Your task to perform on an android device: Search for Mexican restaurants on Maps Image 0: 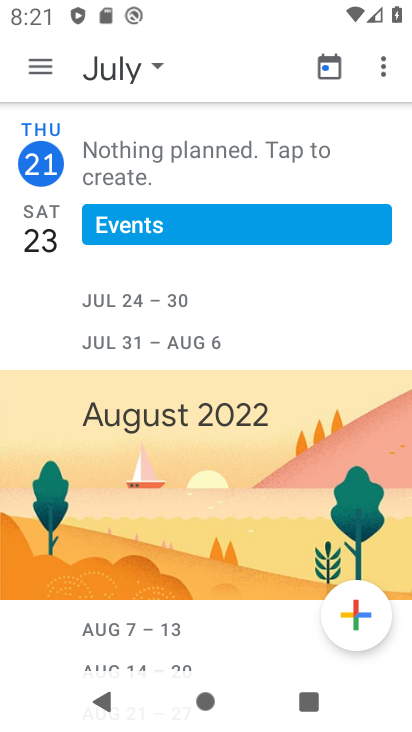
Step 0: press home button
Your task to perform on an android device: Search for Mexican restaurants on Maps Image 1: 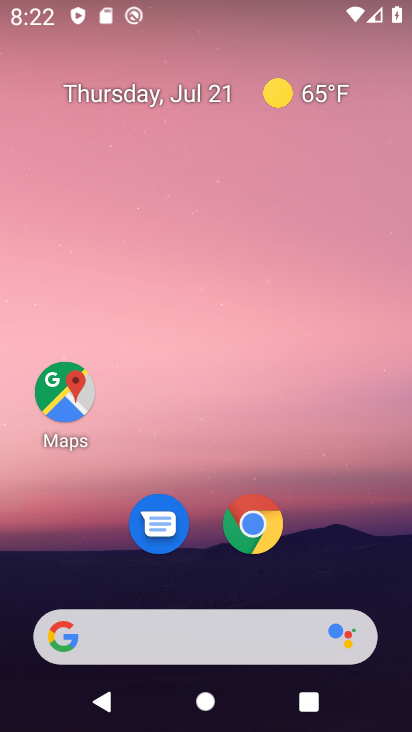
Step 1: click (61, 420)
Your task to perform on an android device: Search for Mexican restaurants on Maps Image 2: 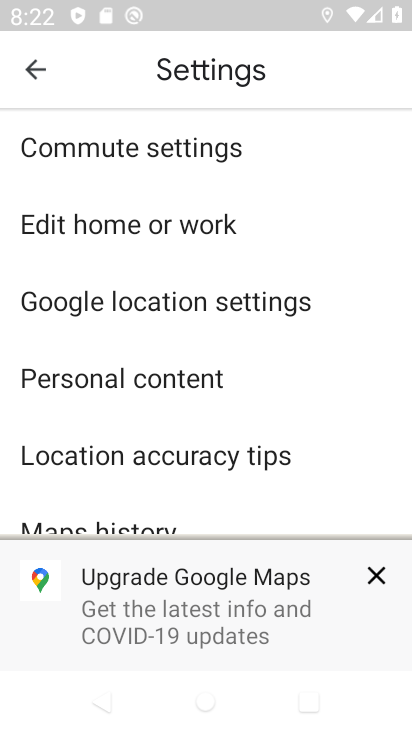
Step 2: click (34, 77)
Your task to perform on an android device: Search for Mexican restaurants on Maps Image 3: 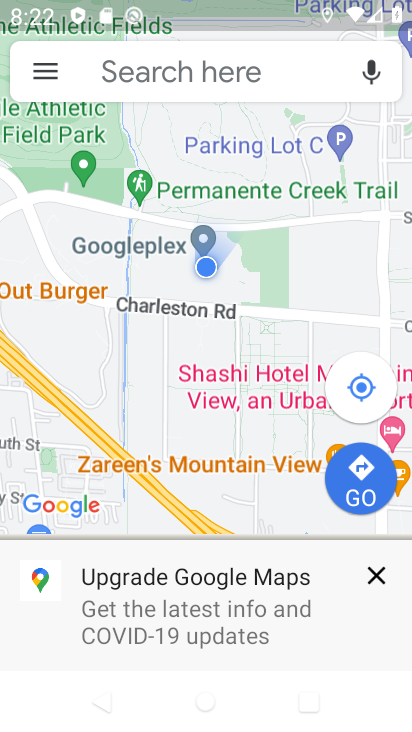
Step 3: click (167, 88)
Your task to perform on an android device: Search for Mexican restaurants on Maps Image 4: 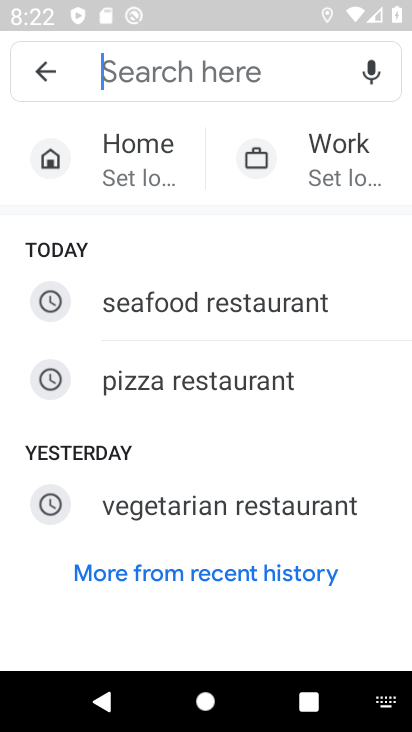
Step 4: type "mexican restaurants"
Your task to perform on an android device: Search for Mexican restaurants on Maps Image 5: 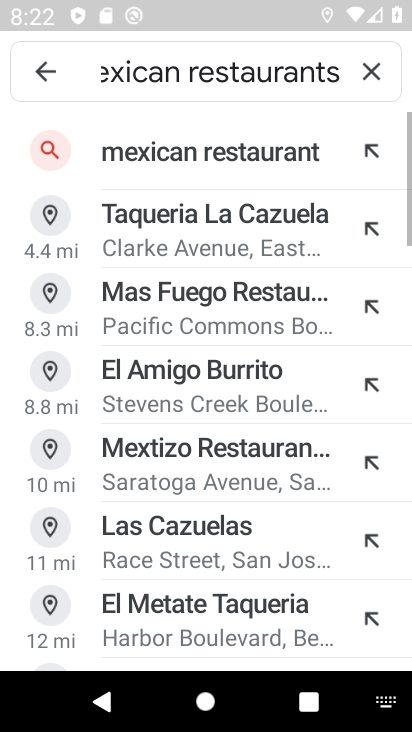
Step 5: click (170, 160)
Your task to perform on an android device: Search for Mexican restaurants on Maps Image 6: 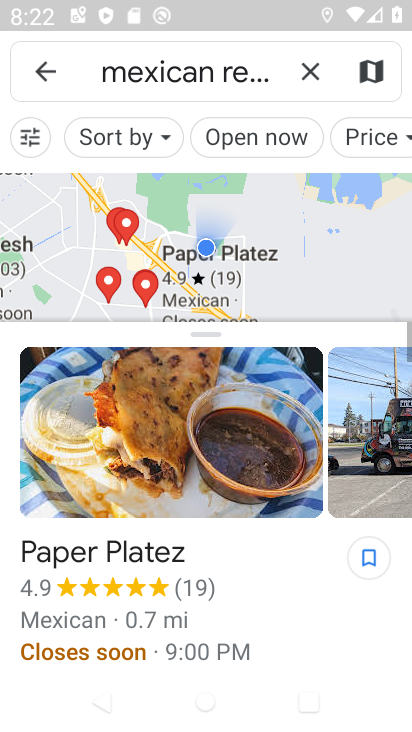
Step 6: task complete